Your task to perform on an android device: empty trash in google photos Image 0: 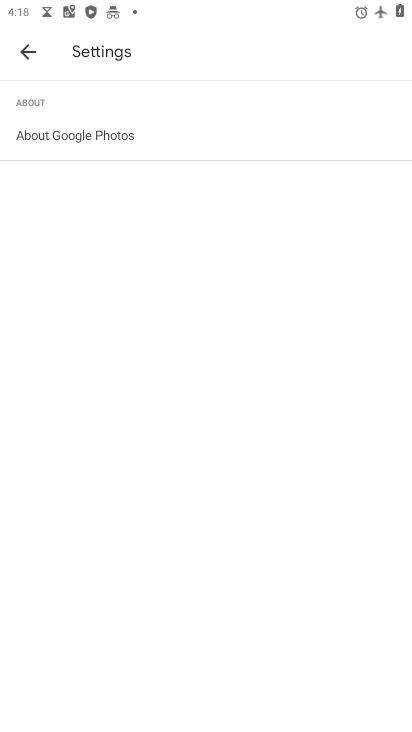
Step 0: drag from (371, 650) to (388, 301)
Your task to perform on an android device: empty trash in google photos Image 1: 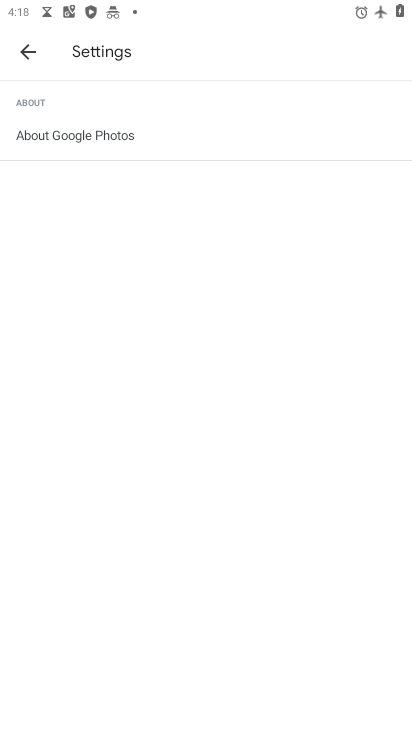
Step 1: click (25, 53)
Your task to perform on an android device: empty trash in google photos Image 2: 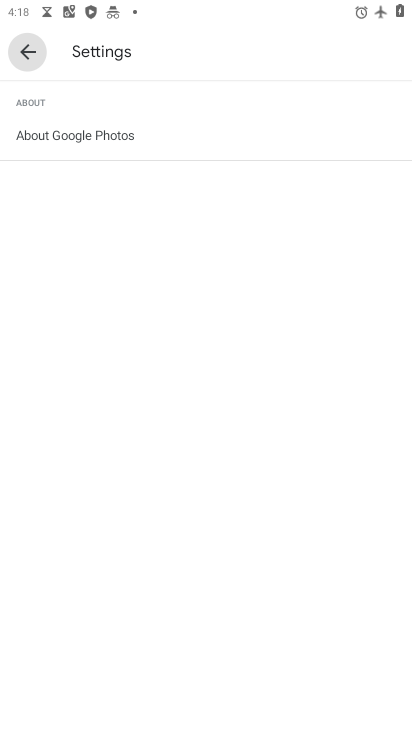
Step 2: click (27, 51)
Your task to perform on an android device: empty trash in google photos Image 3: 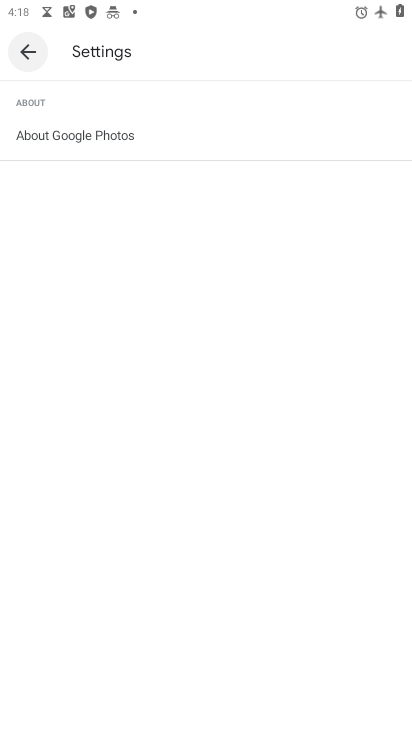
Step 3: click (27, 51)
Your task to perform on an android device: empty trash in google photos Image 4: 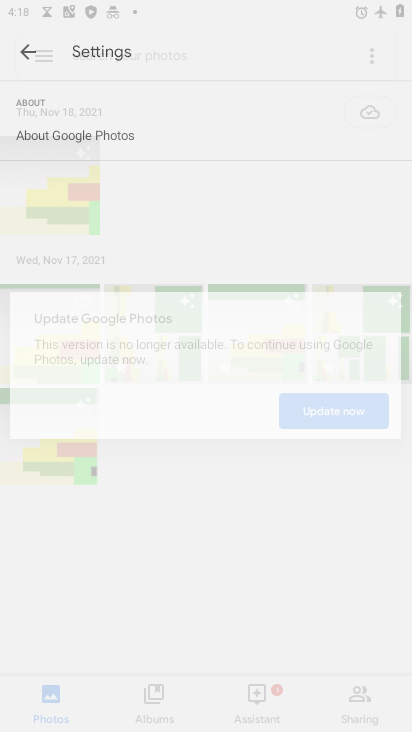
Step 4: click (28, 50)
Your task to perform on an android device: empty trash in google photos Image 5: 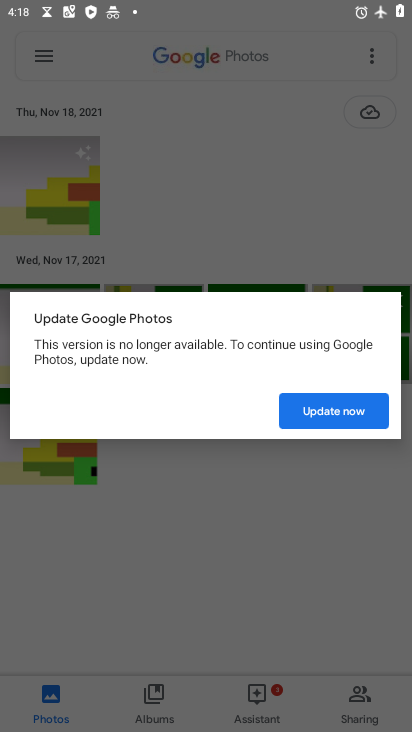
Step 5: click (329, 407)
Your task to perform on an android device: empty trash in google photos Image 6: 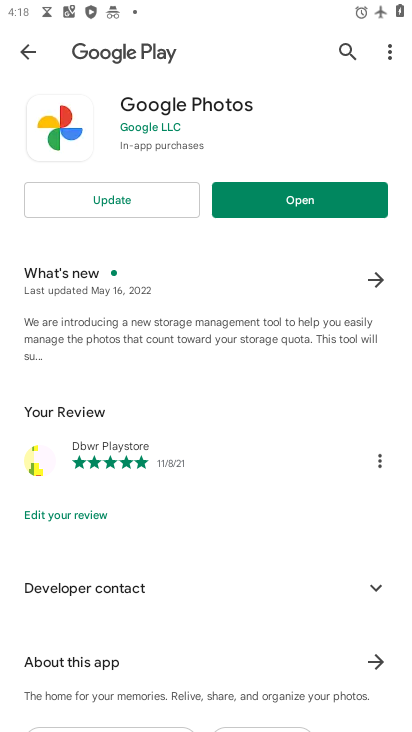
Step 6: press back button
Your task to perform on an android device: empty trash in google photos Image 7: 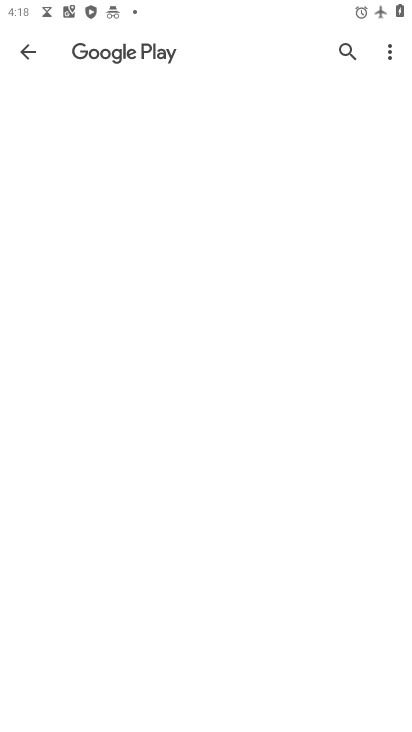
Step 7: press back button
Your task to perform on an android device: empty trash in google photos Image 8: 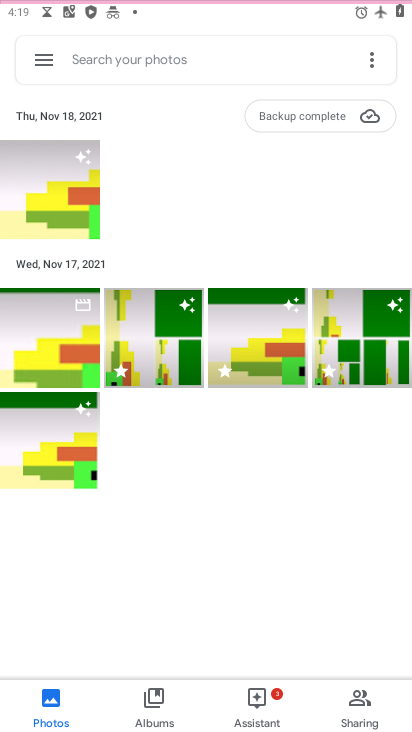
Step 8: press back button
Your task to perform on an android device: empty trash in google photos Image 9: 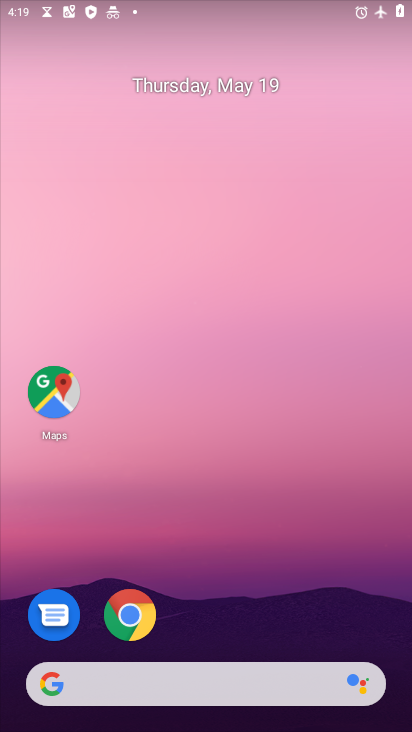
Step 9: drag from (266, 644) to (73, 314)
Your task to perform on an android device: empty trash in google photos Image 10: 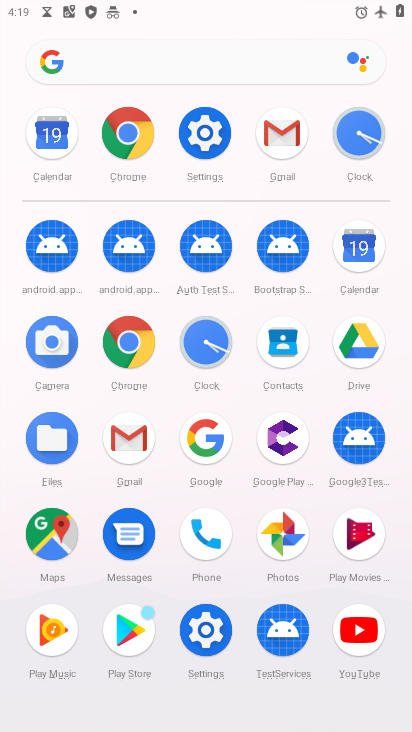
Step 10: click (287, 525)
Your task to perform on an android device: empty trash in google photos Image 11: 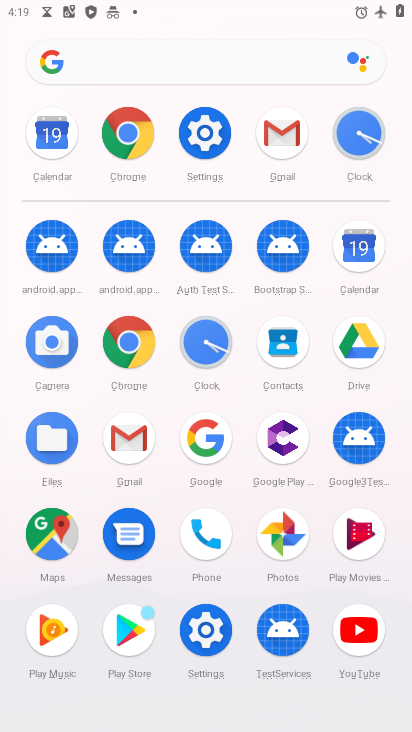
Step 11: click (287, 525)
Your task to perform on an android device: empty trash in google photos Image 12: 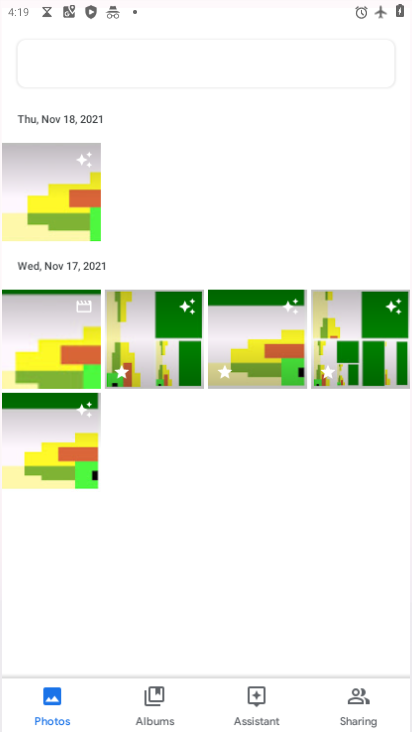
Step 12: click (289, 525)
Your task to perform on an android device: empty trash in google photos Image 13: 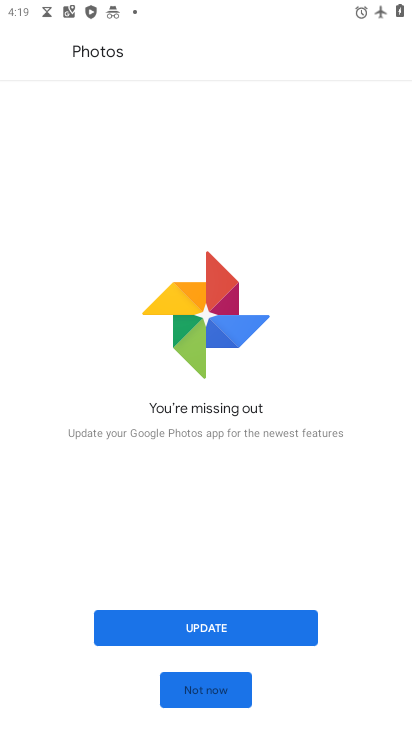
Step 13: click (208, 693)
Your task to perform on an android device: empty trash in google photos Image 14: 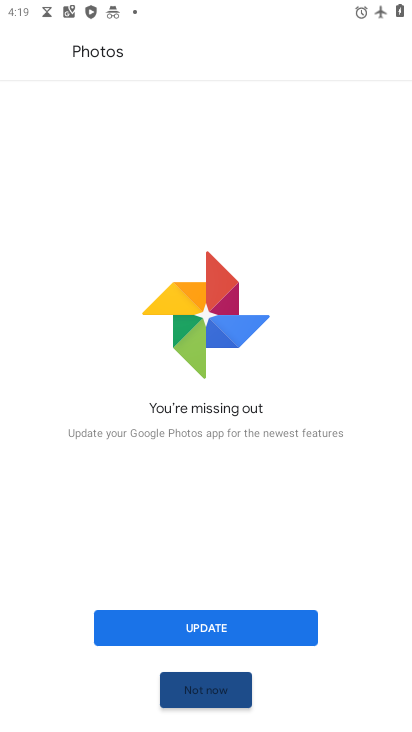
Step 14: click (217, 685)
Your task to perform on an android device: empty trash in google photos Image 15: 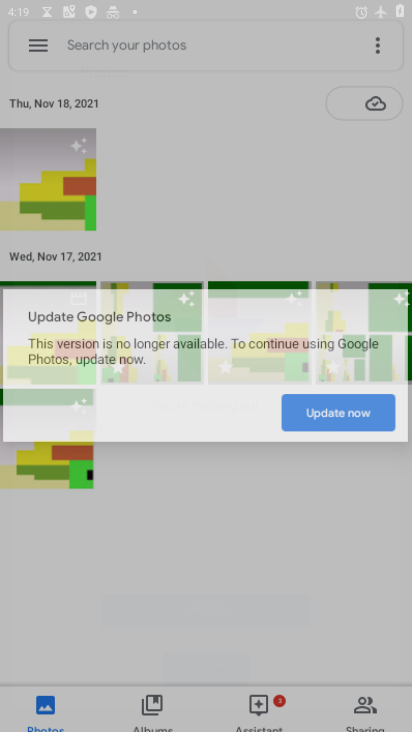
Step 15: click (217, 685)
Your task to perform on an android device: empty trash in google photos Image 16: 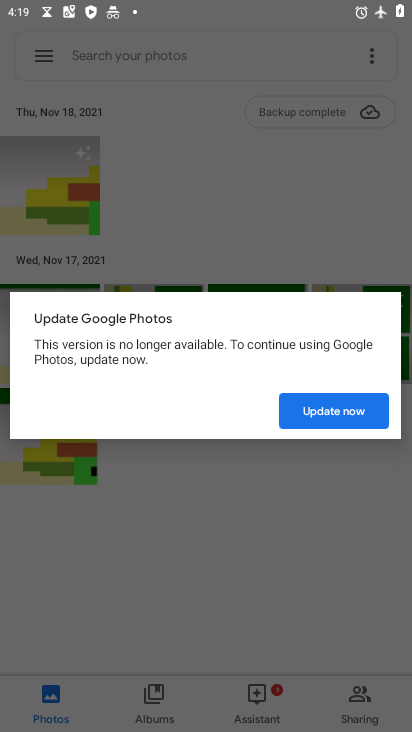
Step 16: click (217, 685)
Your task to perform on an android device: empty trash in google photos Image 17: 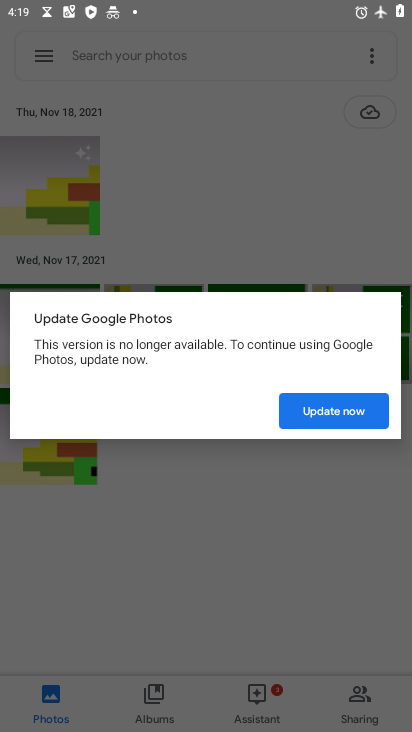
Step 17: click (333, 409)
Your task to perform on an android device: empty trash in google photos Image 18: 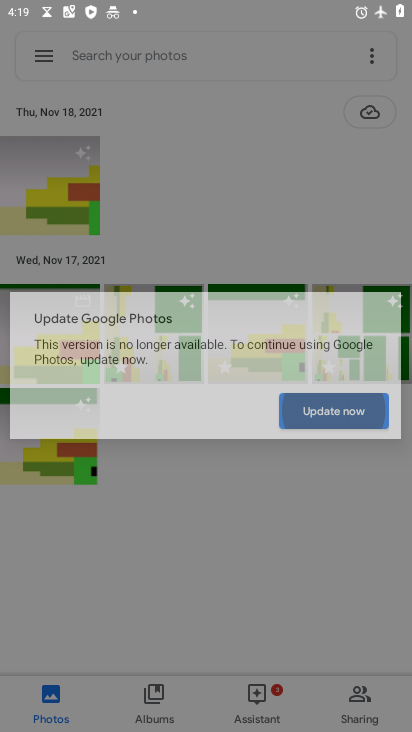
Step 18: click (333, 409)
Your task to perform on an android device: empty trash in google photos Image 19: 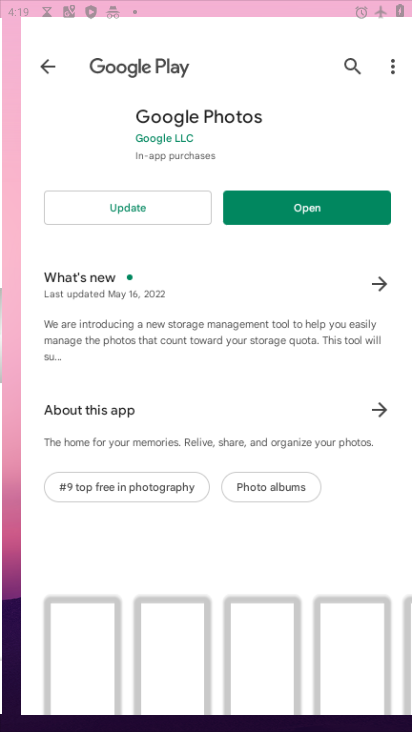
Step 19: click (334, 410)
Your task to perform on an android device: empty trash in google photos Image 20: 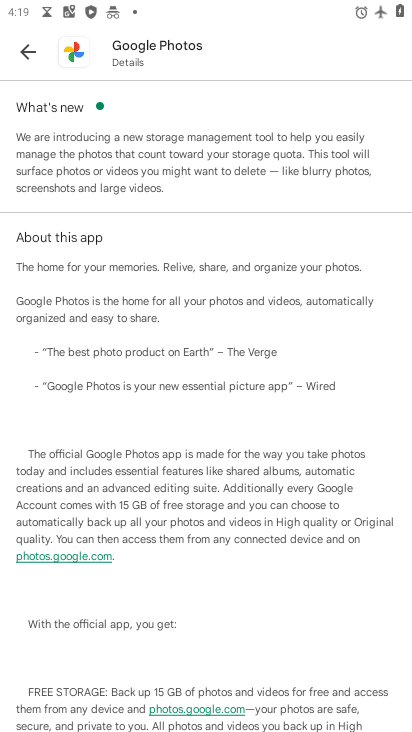
Step 20: click (22, 49)
Your task to perform on an android device: empty trash in google photos Image 21: 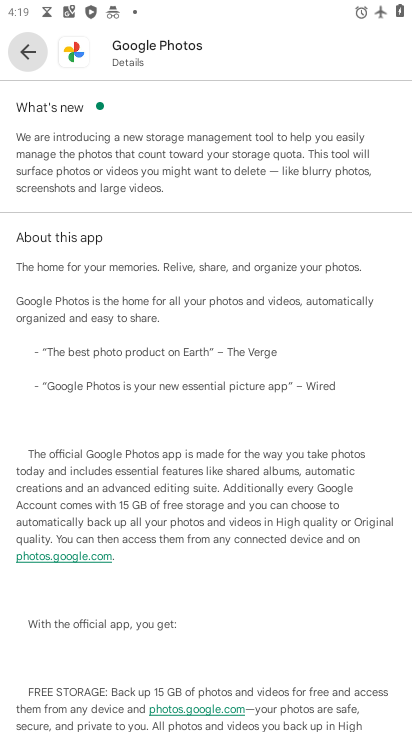
Step 21: click (30, 48)
Your task to perform on an android device: empty trash in google photos Image 22: 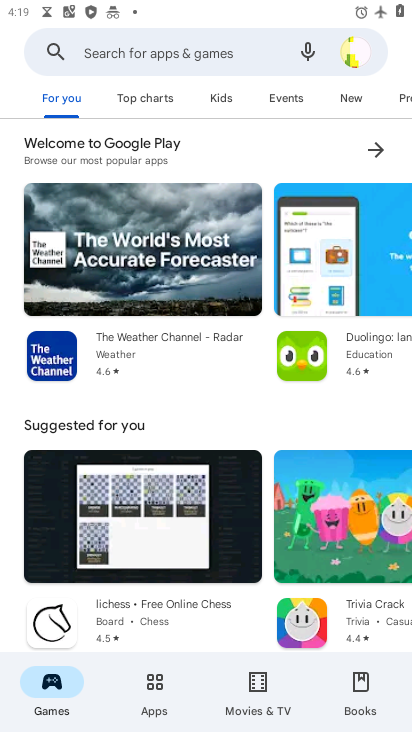
Step 22: press back button
Your task to perform on an android device: empty trash in google photos Image 23: 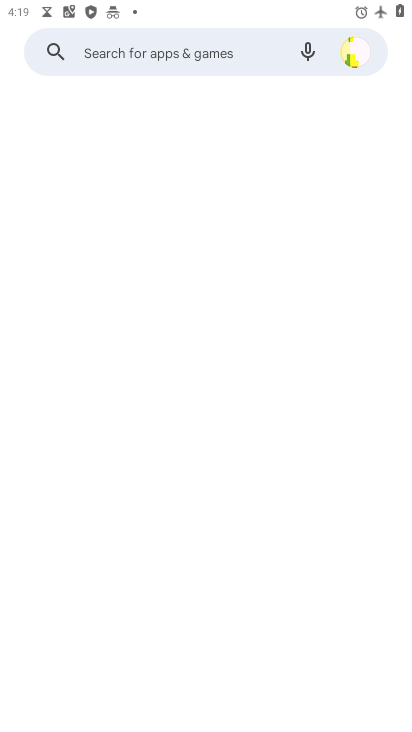
Step 23: press back button
Your task to perform on an android device: empty trash in google photos Image 24: 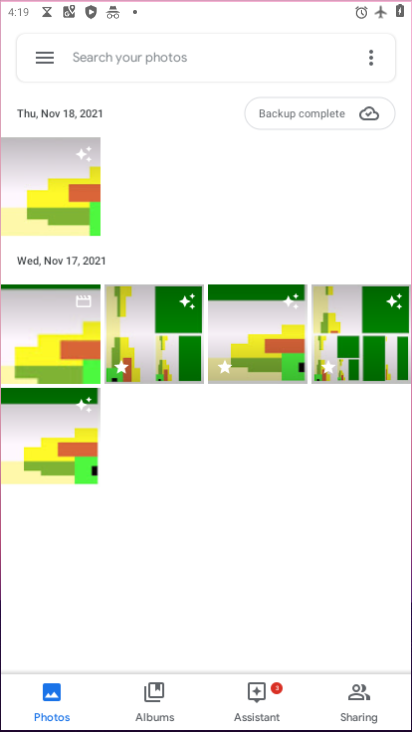
Step 24: press back button
Your task to perform on an android device: empty trash in google photos Image 25: 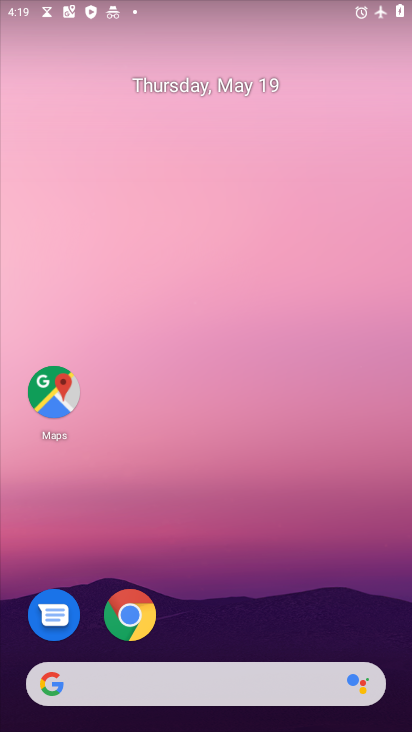
Step 25: drag from (209, 686) to (224, 125)
Your task to perform on an android device: empty trash in google photos Image 26: 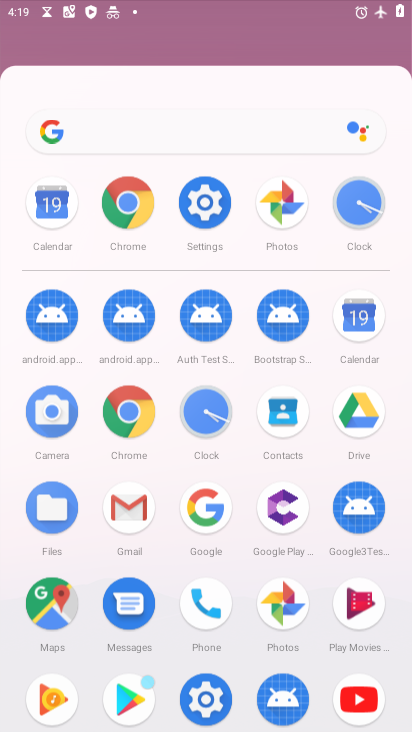
Step 26: drag from (260, 470) to (214, 116)
Your task to perform on an android device: empty trash in google photos Image 27: 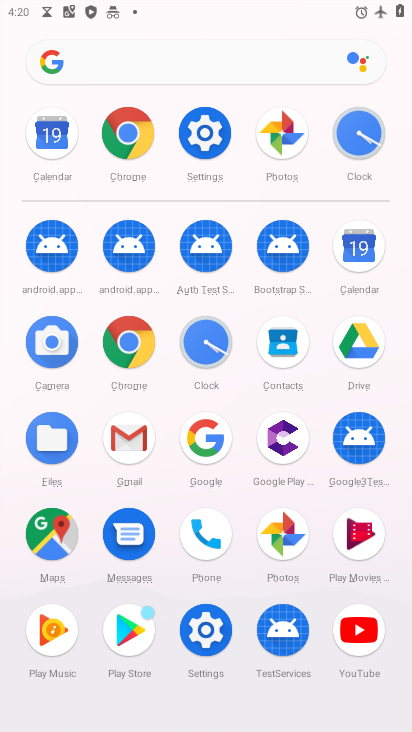
Step 27: click (282, 536)
Your task to perform on an android device: empty trash in google photos Image 28: 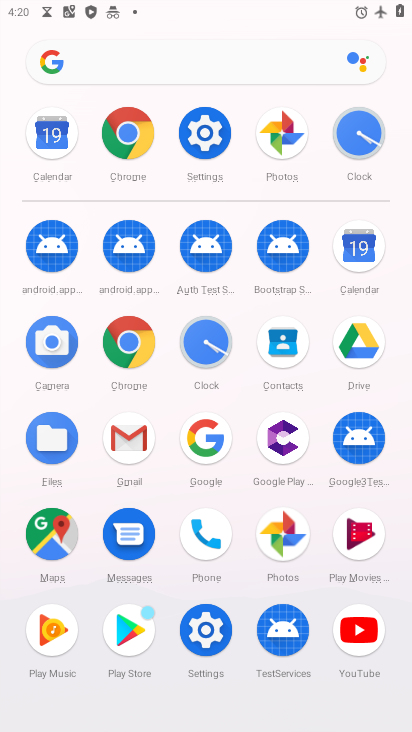
Step 28: click (282, 536)
Your task to perform on an android device: empty trash in google photos Image 29: 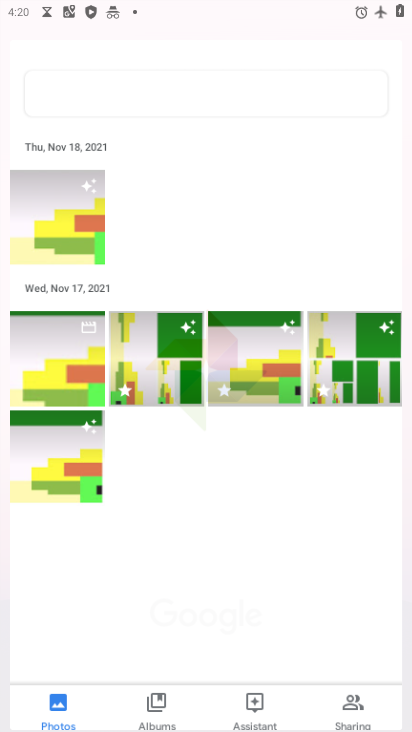
Step 29: click (286, 524)
Your task to perform on an android device: empty trash in google photos Image 30: 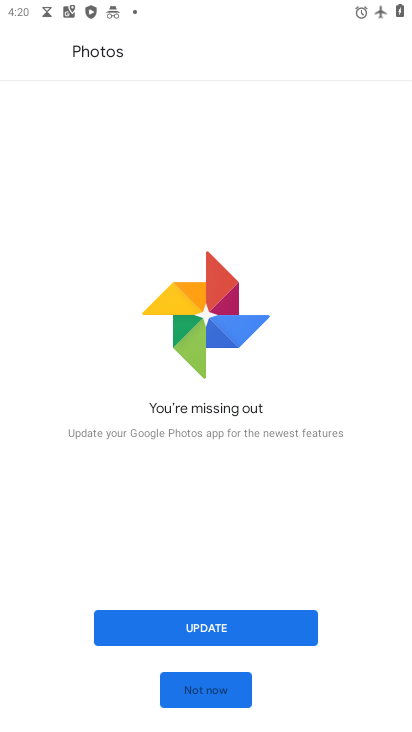
Step 30: click (208, 685)
Your task to perform on an android device: empty trash in google photos Image 31: 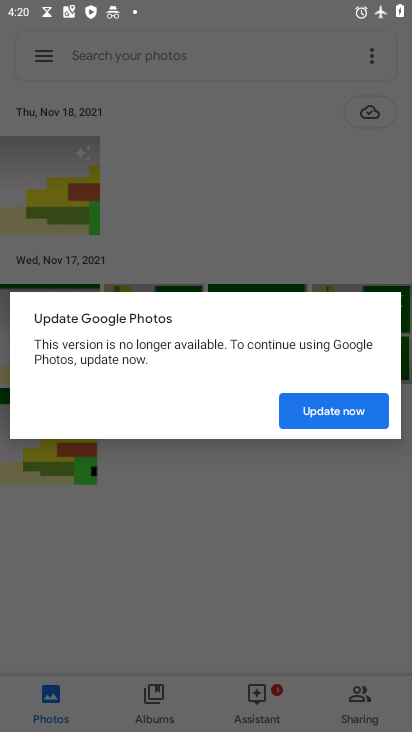
Step 31: click (335, 405)
Your task to perform on an android device: empty trash in google photos Image 32: 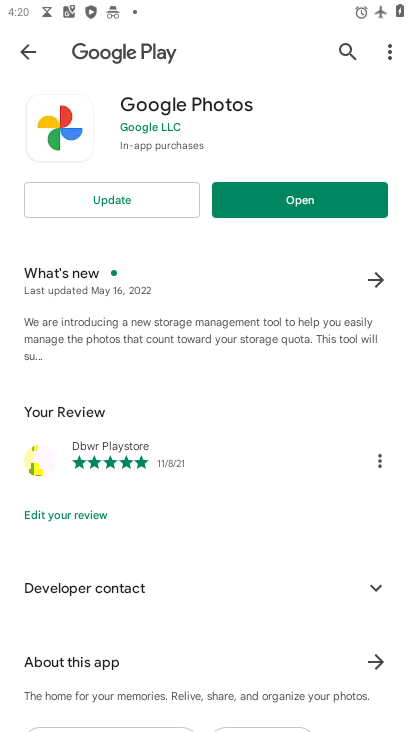
Step 32: press back button
Your task to perform on an android device: empty trash in google photos Image 33: 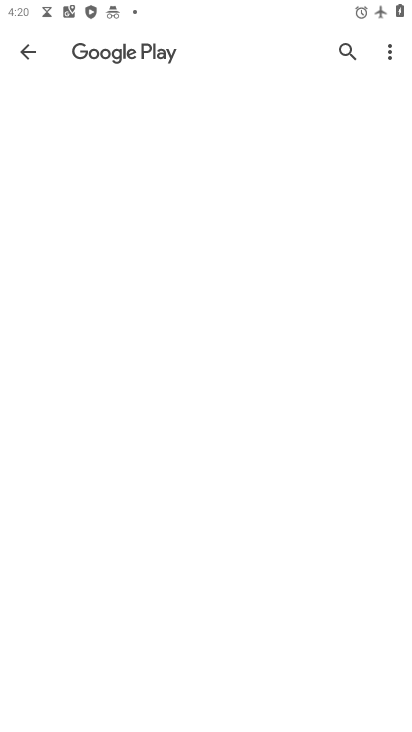
Step 33: press back button
Your task to perform on an android device: empty trash in google photos Image 34: 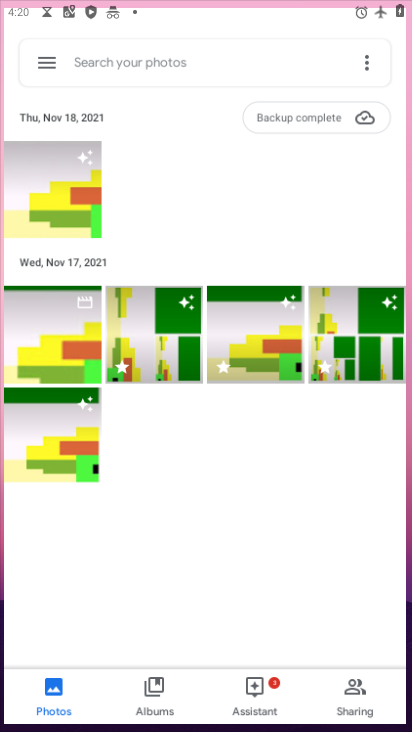
Step 34: press back button
Your task to perform on an android device: empty trash in google photos Image 35: 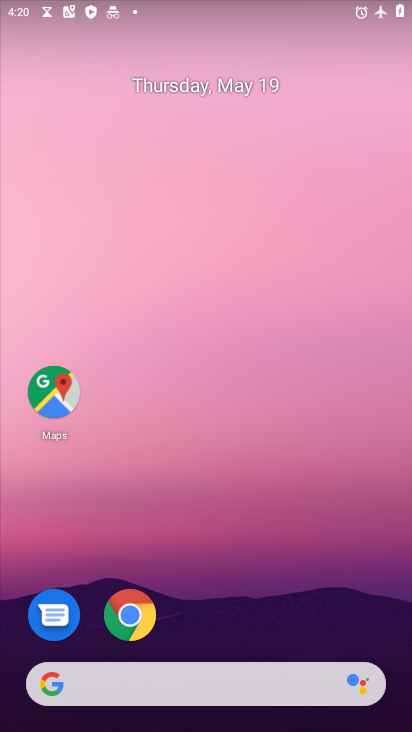
Step 35: drag from (163, 495) to (92, 92)
Your task to perform on an android device: empty trash in google photos Image 36: 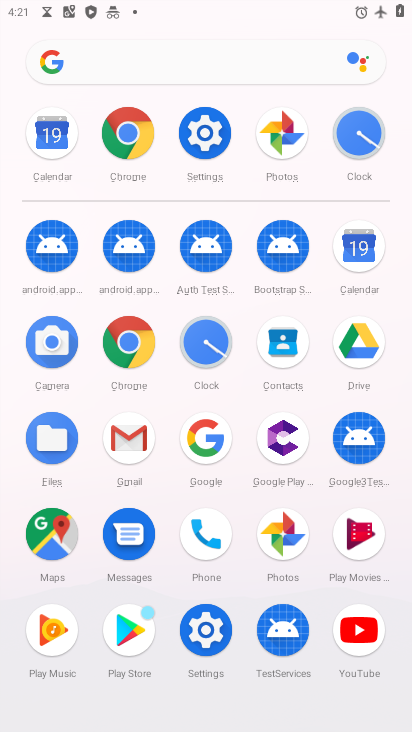
Step 36: drag from (266, 514) to (290, 546)
Your task to perform on an android device: empty trash in google photos Image 37: 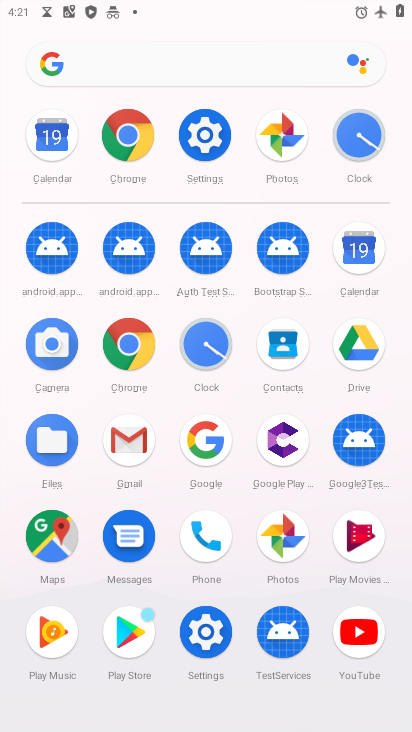
Step 37: click (290, 546)
Your task to perform on an android device: empty trash in google photos Image 38: 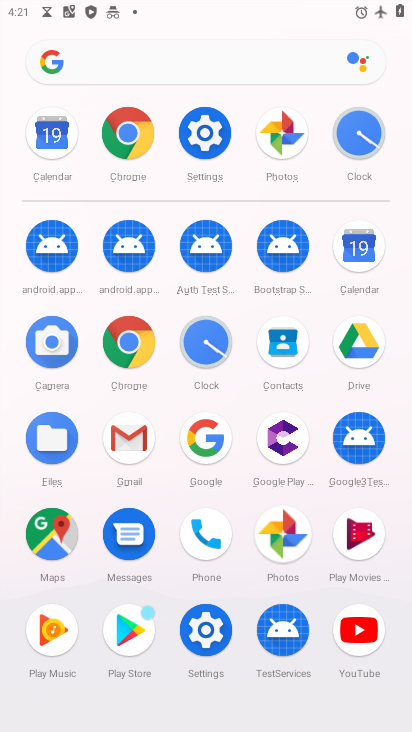
Step 38: click (290, 545)
Your task to perform on an android device: empty trash in google photos Image 39: 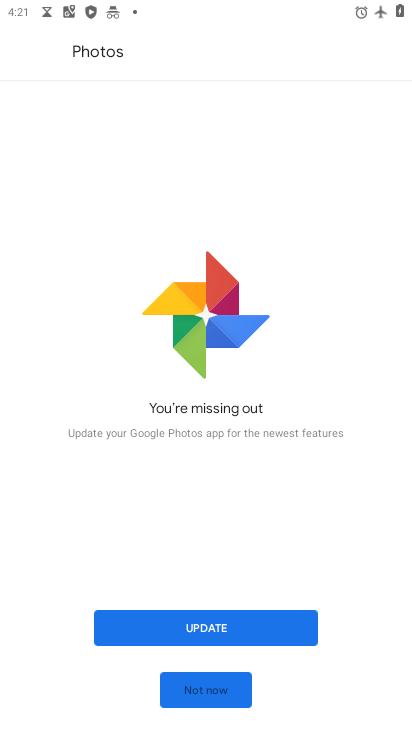
Step 39: click (206, 679)
Your task to perform on an android device: empty trash in google photos Image 40: 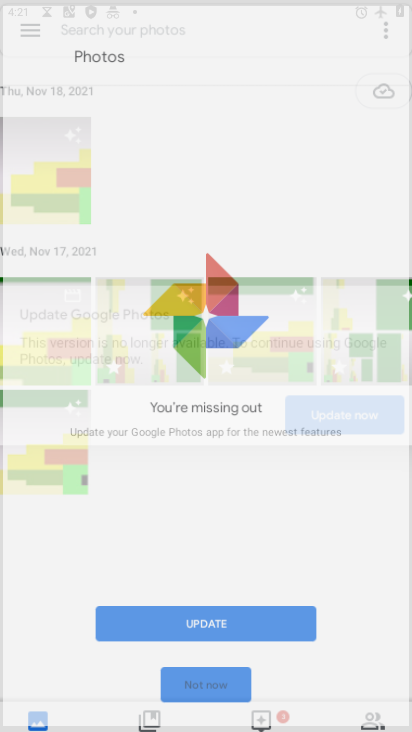
Step 40: click (211, 679)
Your task to perform on an android device: empty trash in google photos Image 41: 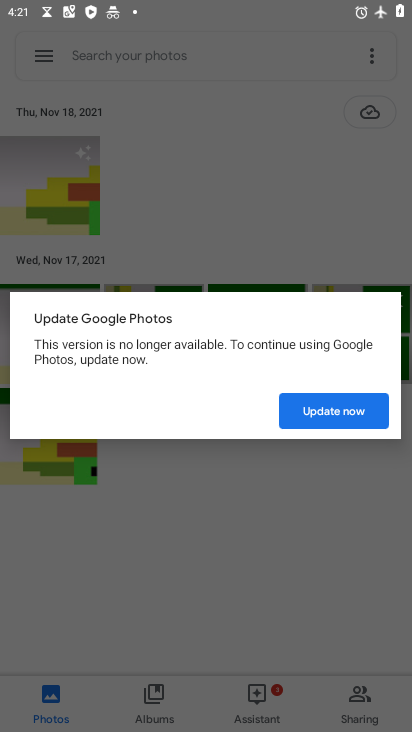
Step 41: click (327, 421)
Your task to perform on an android device: empty trash in google photos Image 42: 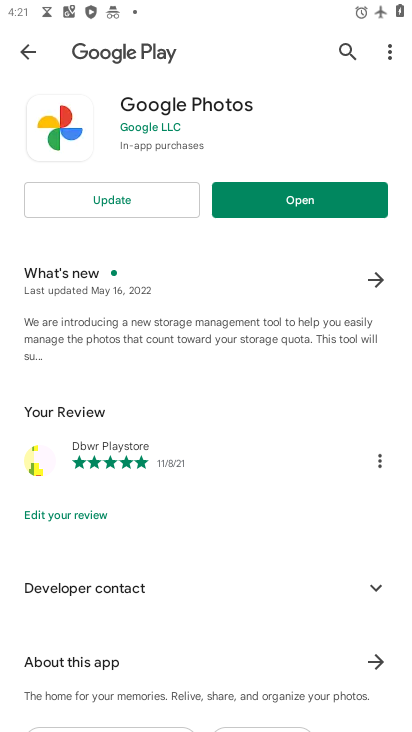
Step 42: click (130, 204)
Your task to perform on an android device: empty trash in google photos Image 43: 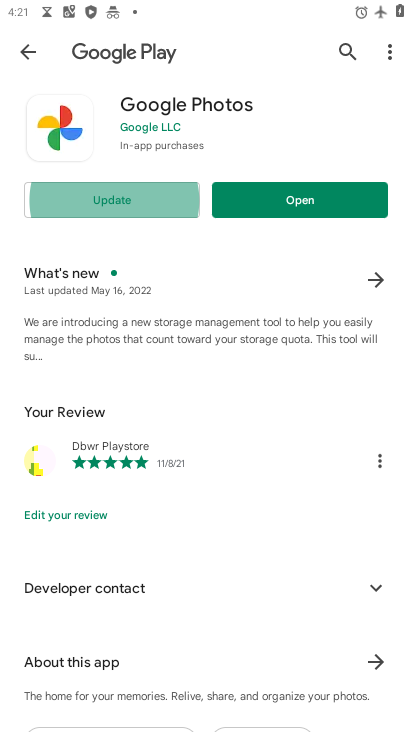
Step 43: click (128, 203)
Your task to perform on an android device: empty trash in google photos Image 44: 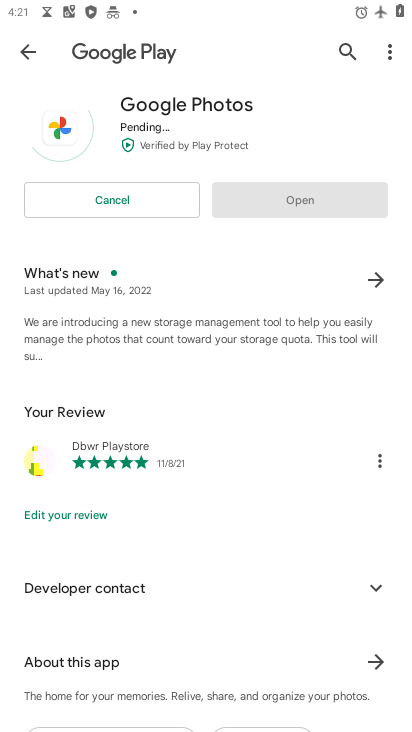
Step 44: click (130, 200)
Your task to perform on an android device: empty trash in google photos Image 45: 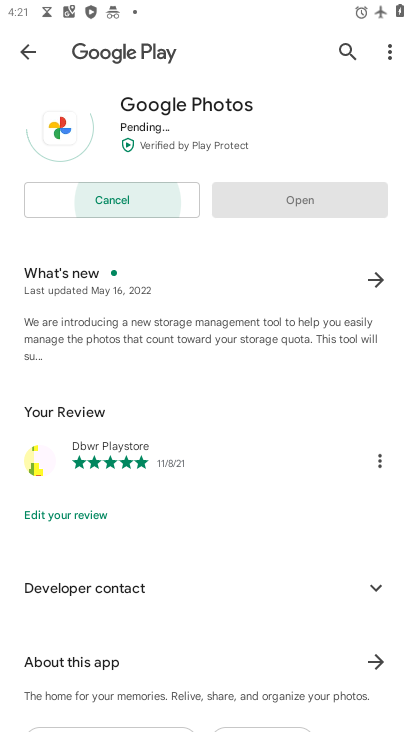
Step 45: click (132, 197)
Your task to perform on an android device: empty trash in google photos Image 46: 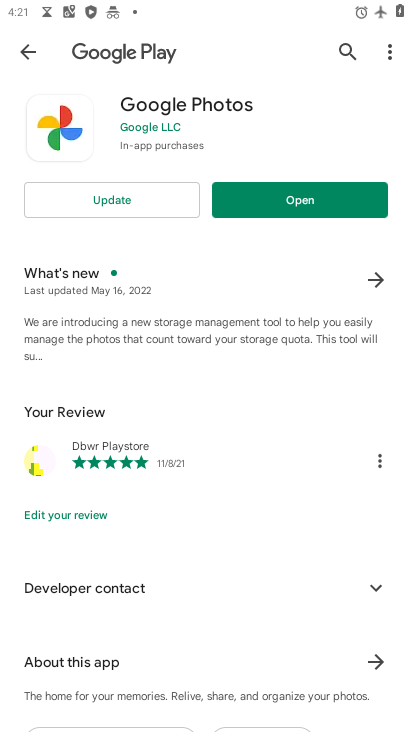
Step 46: click (292, 203)
Your task to perform on an android device: empty trash in google photos Image 47: 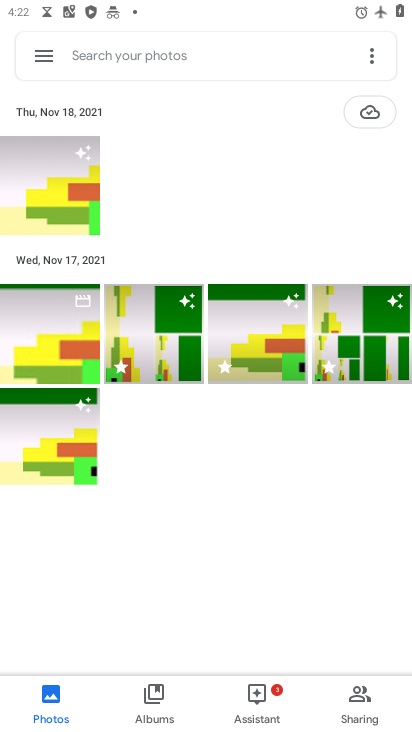
Step 47: drag from (206, 221) to (215, 105)
Your task to perform on an android device: empty trash in google photos Image 48: 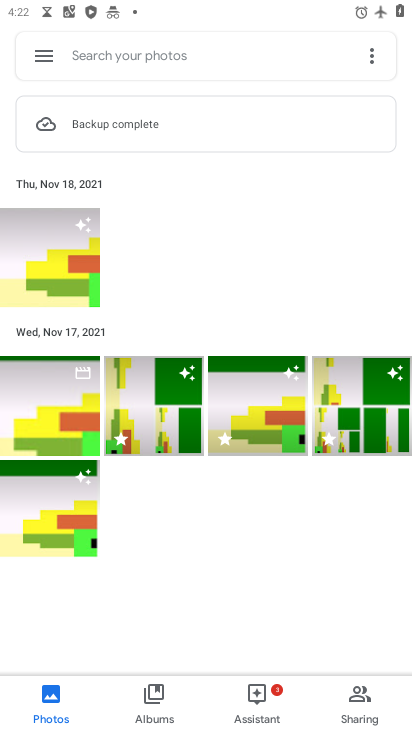
Step 48: click (220, 119)
Your task to perform on an android device: empty trash in google photos Image 49: 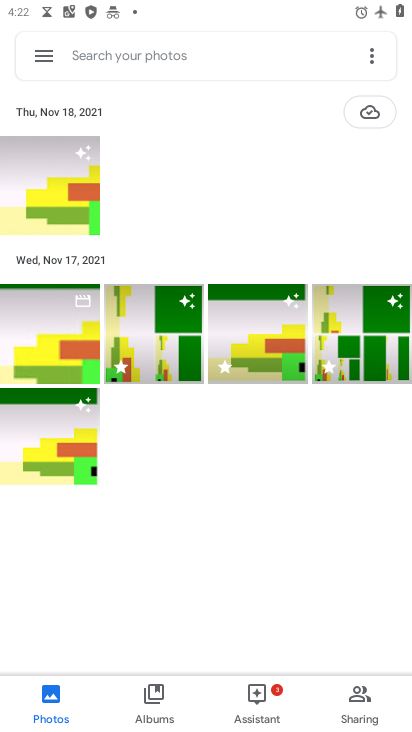
Step 49: task complete